Your task to perform on an android device: turn off smart reply in the gmail app Image 0: 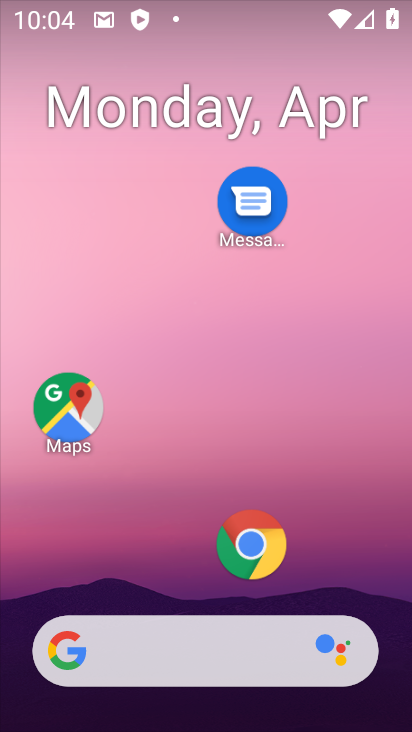
Step 0: drag from (207, 582) to (227, 32)
Your task to perform on an android device: turn off smart reply in the gmail app Image 1: 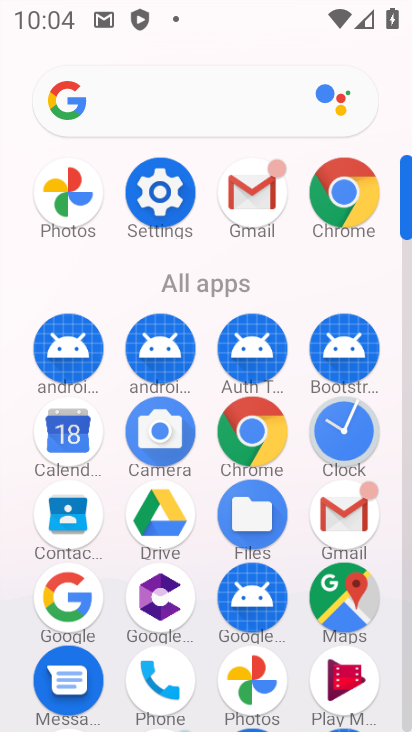
Step 1: click (342, 504)
Your task to perform on an android device: turn off smart reply in the gmail app Image 2: 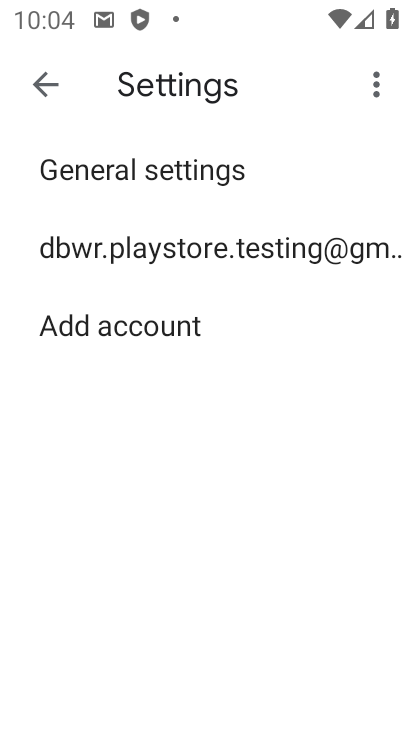
Step 2: click (233, 252)
Your task to perform on an android device: turn off smart reply in the gmail app Image 3: 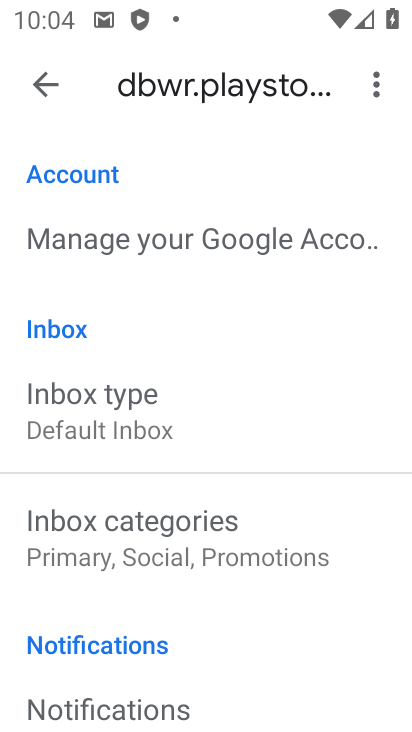
Step 3: drag from (215, 620) to (225, 71)
Your task to perform on an android device: turn off smart reply in the gmail app Image 4: 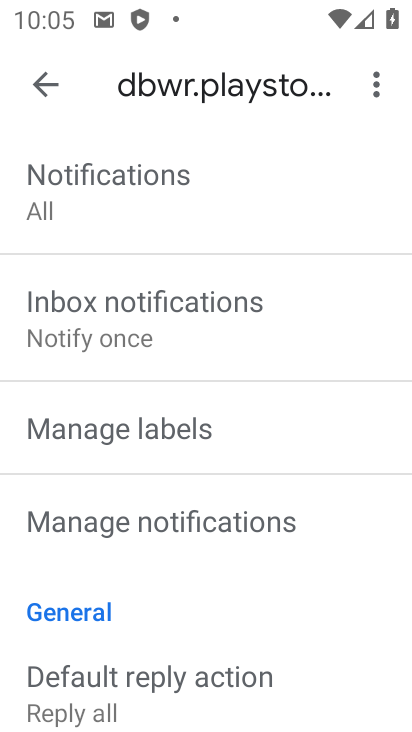
Step 4: drag from (246, 646) to (249, 149)
Your task to perform on an android device: turn off smart reply in the gmail app Image 5: 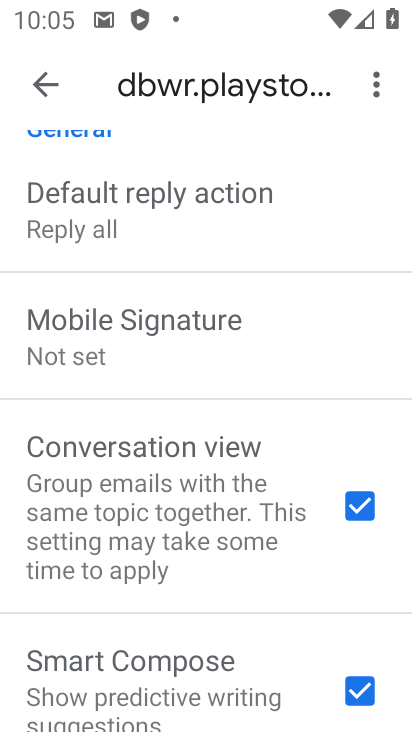
Step 5: drag from (207, 637) to (230, 144)
Your task to perform on an android device: turn off smart reply in the gmail app Image 6: 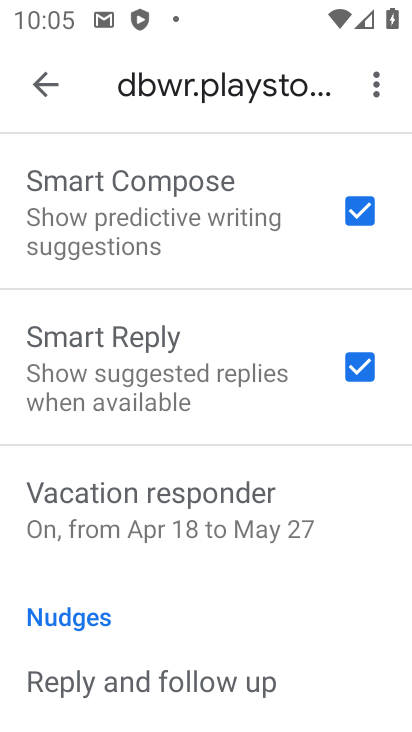
Step 6: click (355, 367)
Your task to perform on an android device: turn off smart reply in the gmail app Image 7: 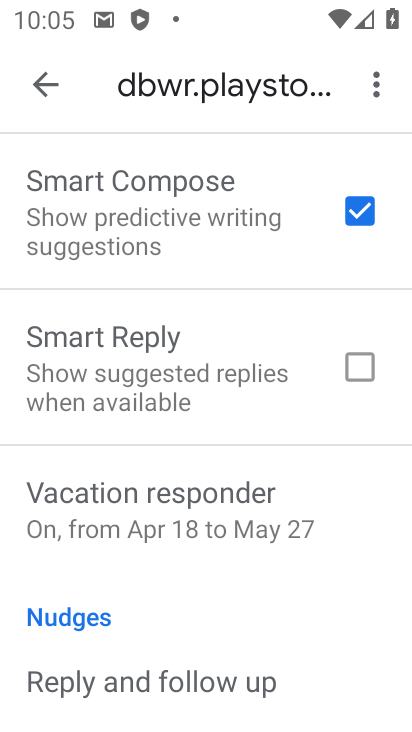
Step 7: task complete